Your task to perform on an android device: open sync settings in chrome Image 0: 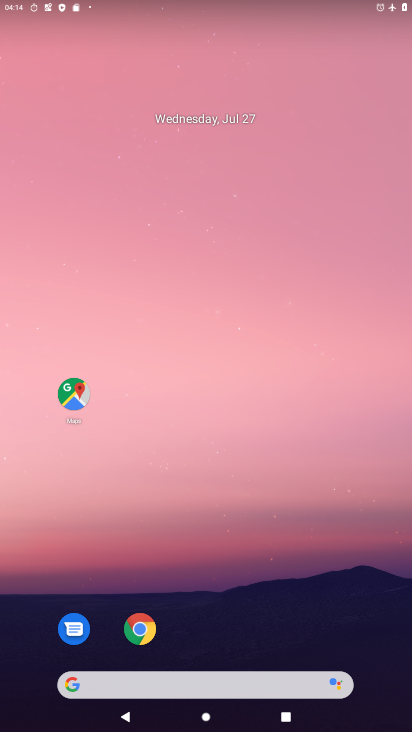
Step 0: drag from (376, 583) to (223, 105)
Your task to perform on an android device: open sync settings in chrome Image 1: 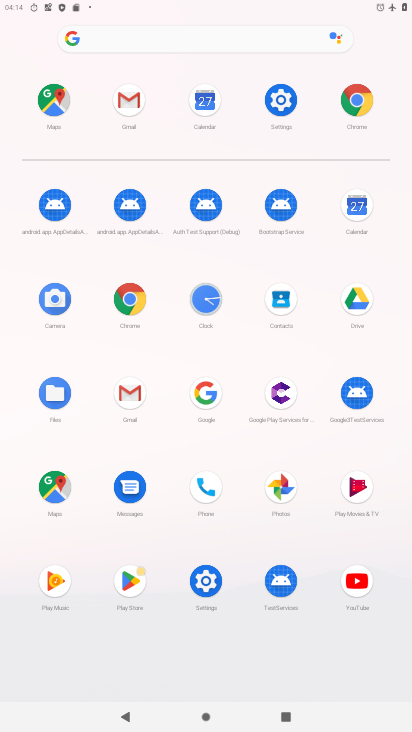
Step 1: click (363, 102)
Your task to perform on an android device: open sync settings in chrome Image 2: 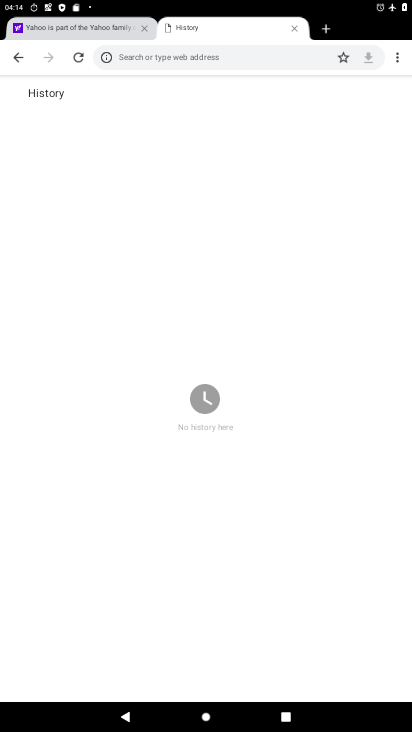
Step 2: drag from (392, 59) to (290, 273)
Your task to perform on an android device: open sync settings in chrome Image 3: 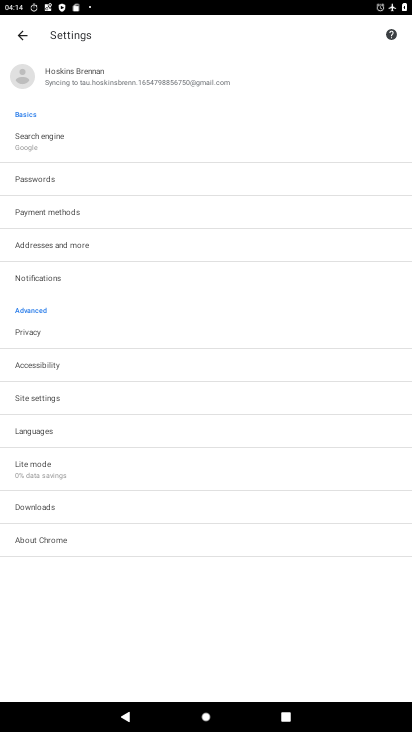
Step 3: click (80, 71)
Your task to perform on an android device: open sync settings in chrome Image 4: 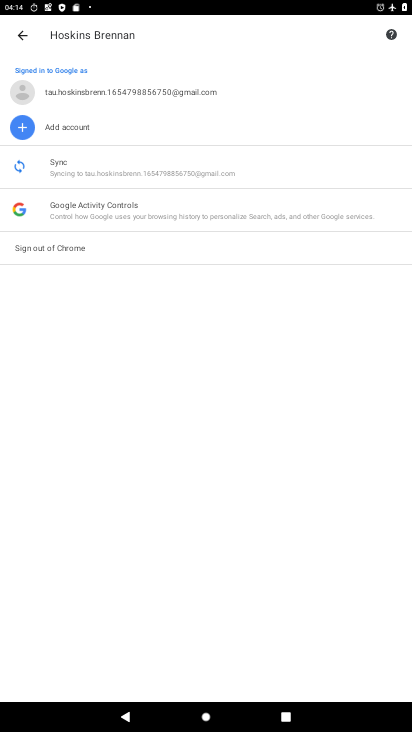
Step 4: click (85, 165)
Your task to perform on an android device: open sync settings in chrome Image 5: 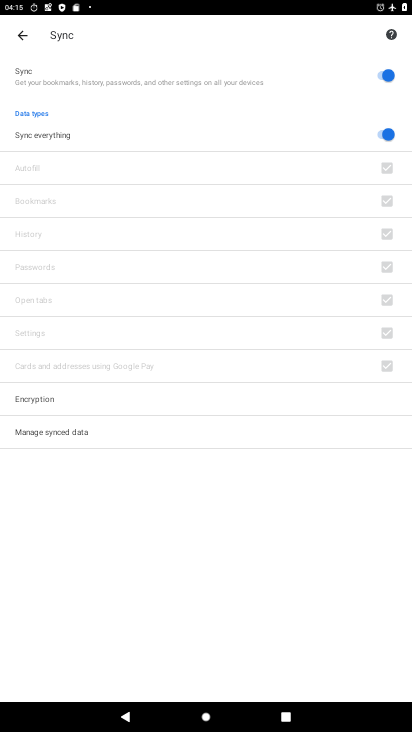
Step 5: task complete